Your task to perform on an android device: find photos in the google photos app Image 0: 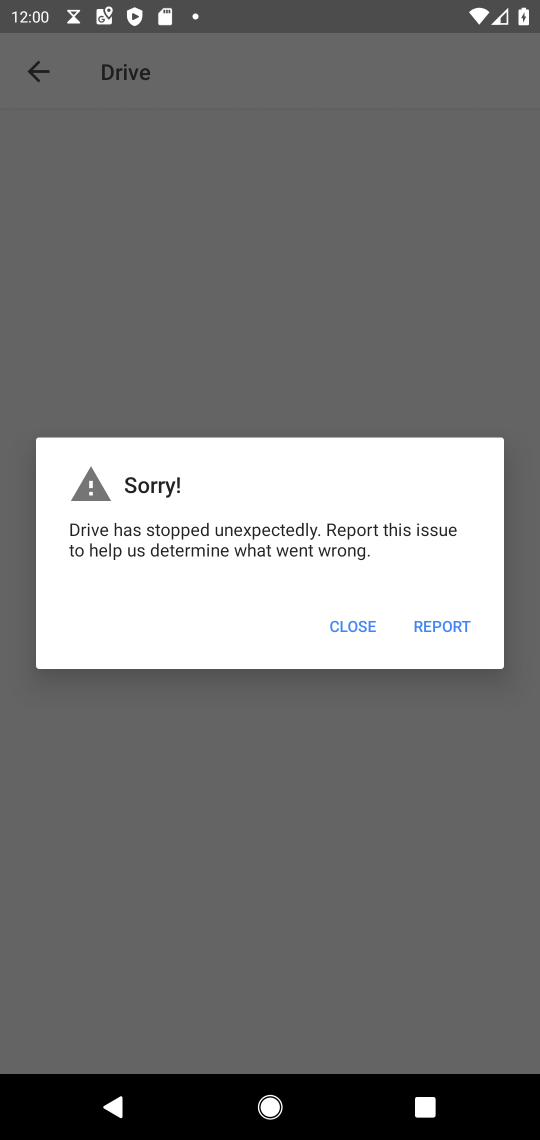
Step 0: press home button
Your task to perform on an android device: find photos in the google photos app Image 1: 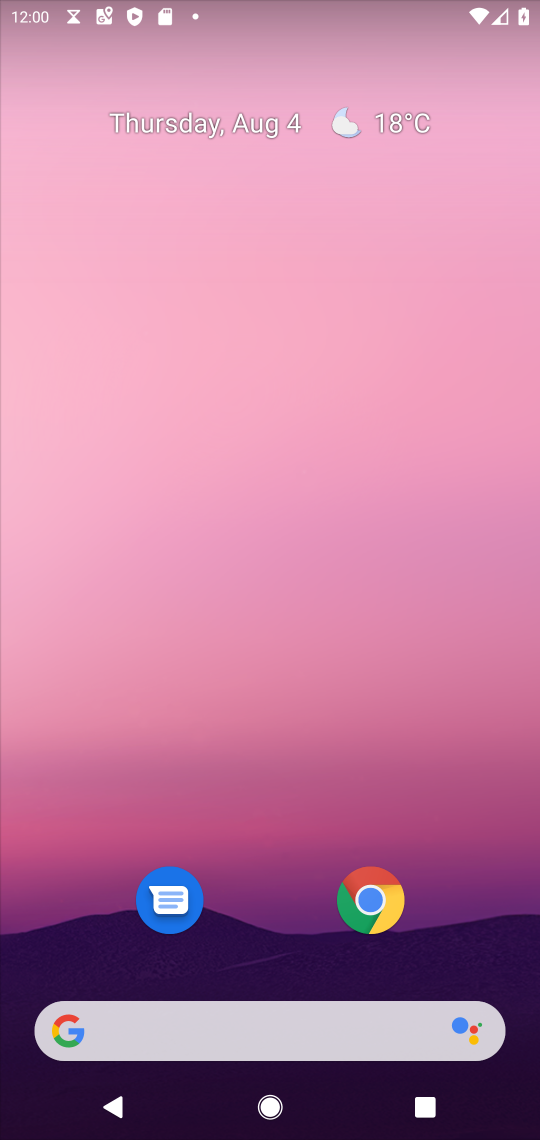
Step 1: drag from (269, 872) to (389, 66)
Your task to perform on an android device: find photos in the google photos app Image 2: 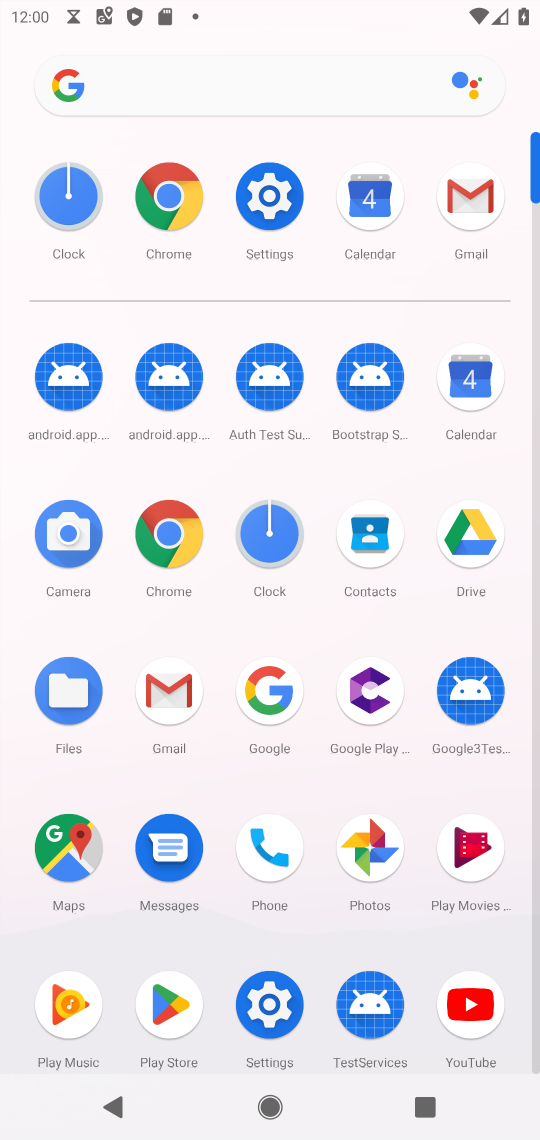
Step 2: click (352, 846)
Your task to perform on an android device: find photos in the google photos app Image 3: 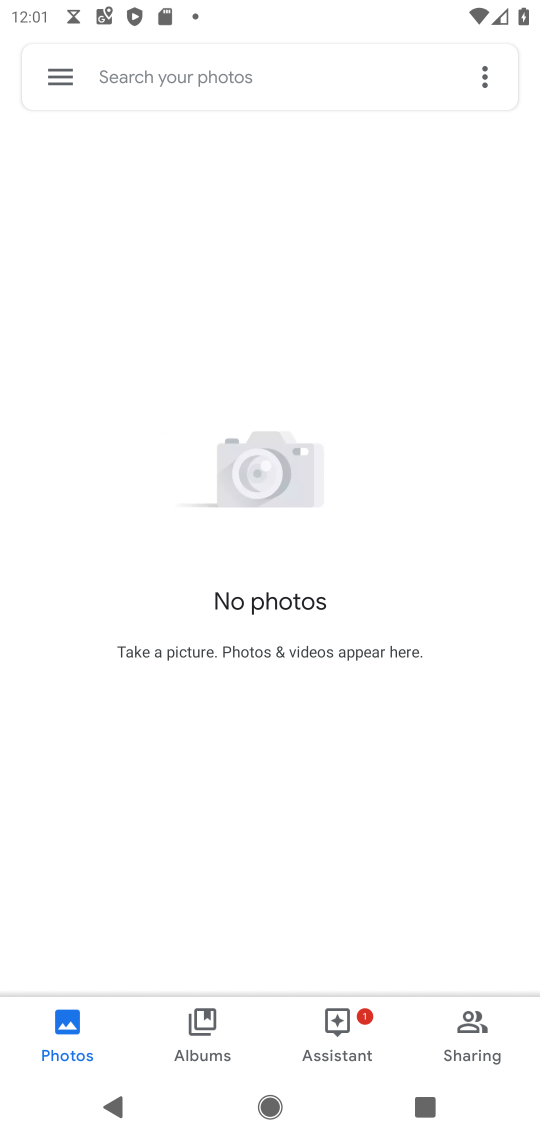
Step 3: task complete